Your task to perform on an android device: Show me popular videos on Youtube Image 0: 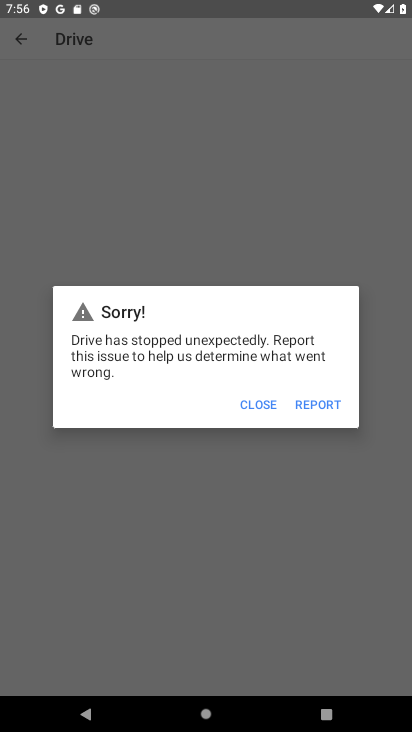
Step 0: click (251, 413)
Your task to perform on an android device: Show me popular videos on Youtube Image 1: 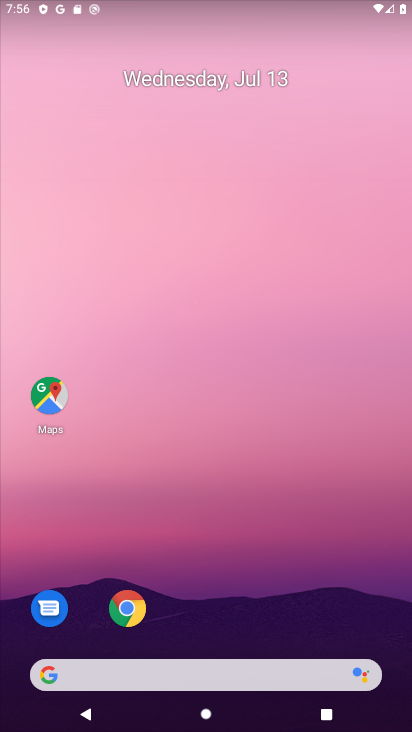
Step 1: drag from (273, 695) to (245, 313)
Your task to perform on an android device: Show me popular videos on Youtube Image 2: 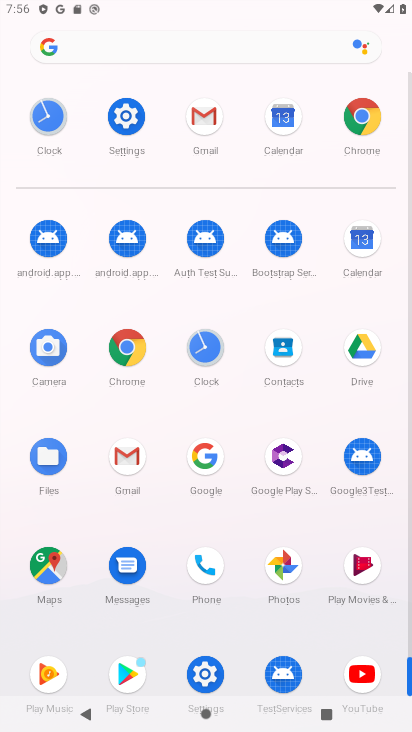
Step 2: click (348, 670)
Your task to perform on an android device: Show me popular videos on Youtube Image 3: 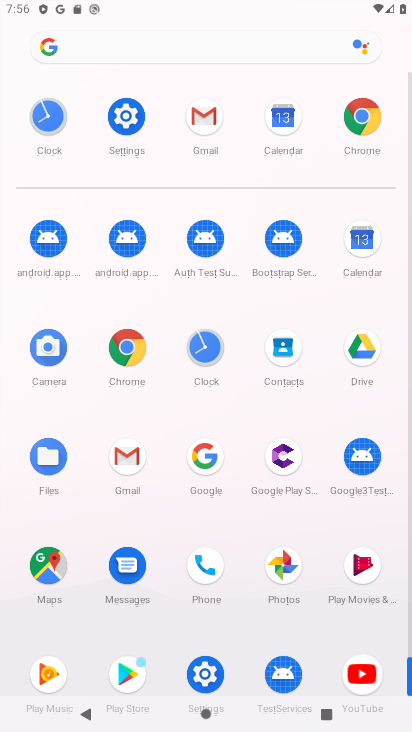
Step 3: click (348, 670)
Your task to perform on an android device: Show me popular videos on Youtube Image 4: 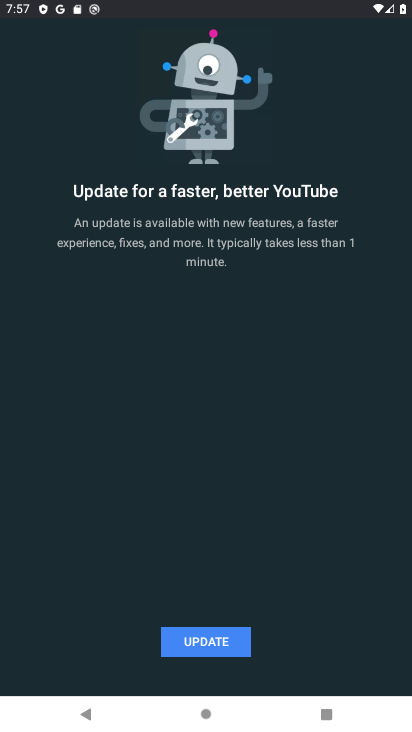
Step 4: task complete